Your task to perform on an android device: check battery use Image 0: 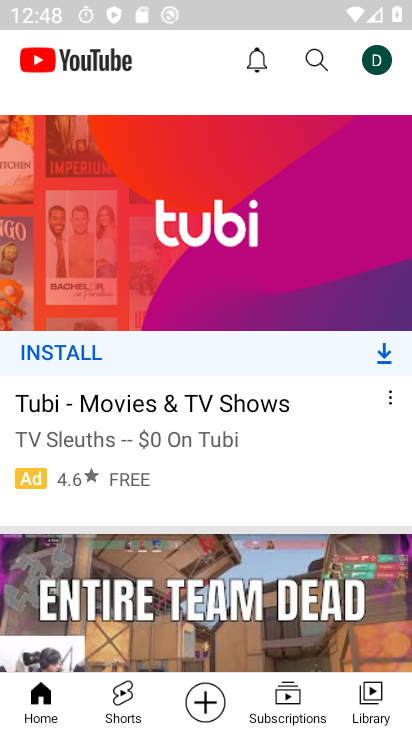
Step 0: press home button
Your task to perform on an android device: check battery use Image 1: 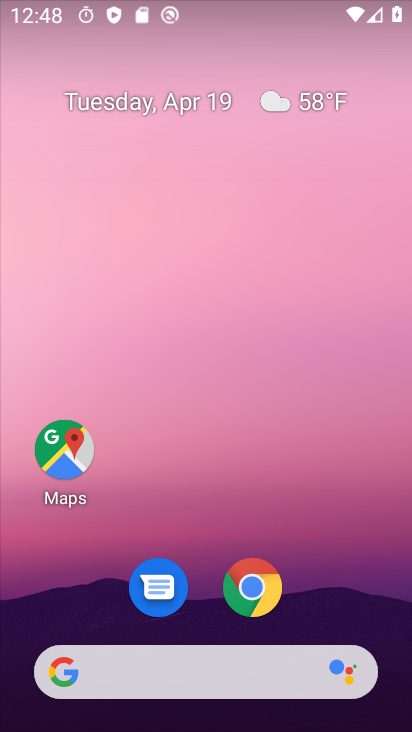
Step 1: drag from (381, 556) to (375, 152)
Your task to perform on an android device: check battery use Image 2: 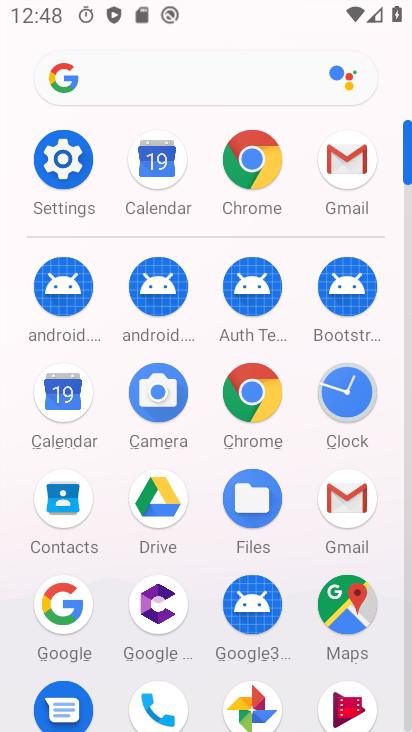
Step 2: click (70, 160)
Your task to perform on an android device: check battery use Image 3: 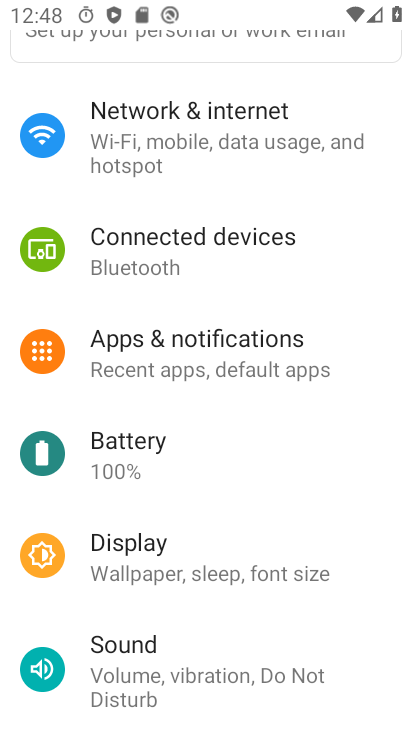
Step 3: click (158, 454)
Your task to perform on an android device: check battery use Image 4: 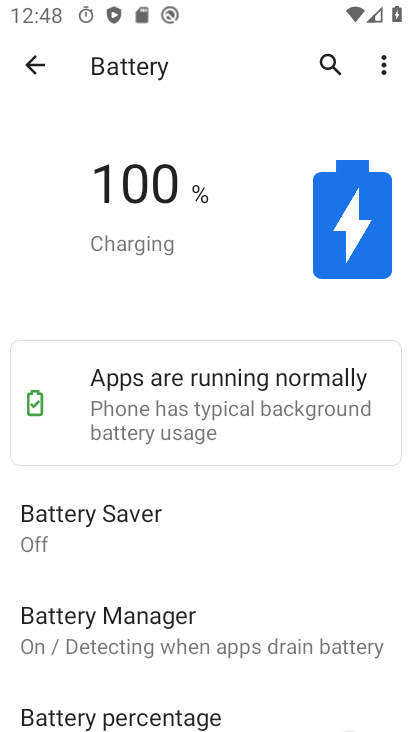
Step 4: task complete